Your task to perform on an android device: Search for pizza restaurants on Maps Image 0: 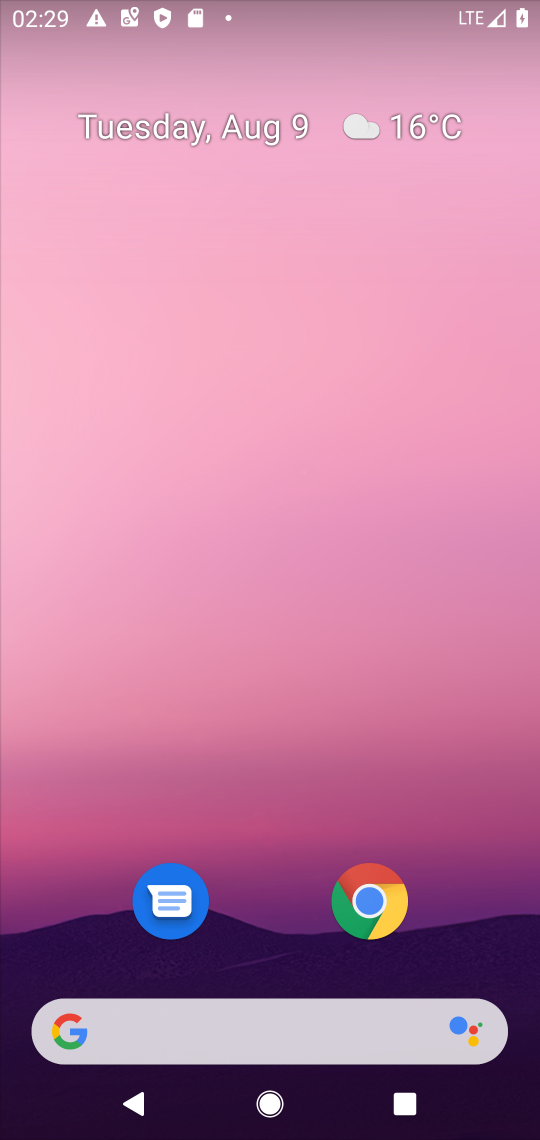
Step 0: drag from (500, 950) to (485, 276)
Your task to perform on an android device: Search for pizza restaurants on Maps Image 1: 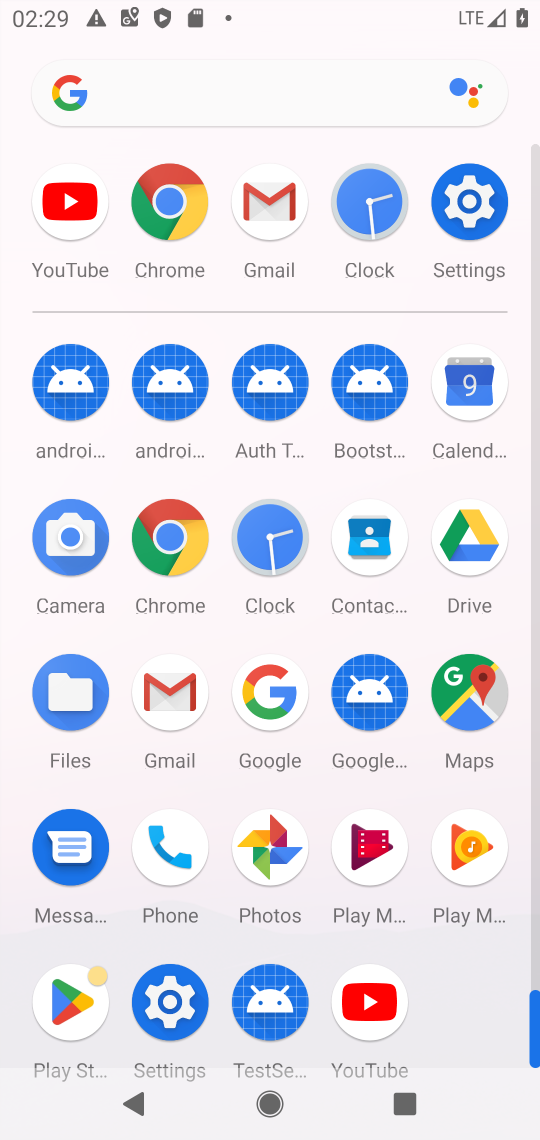
Step 1: click (467, 692)
Your task to perform on an android device: Search for pizza restaurants on Maps Image 2: 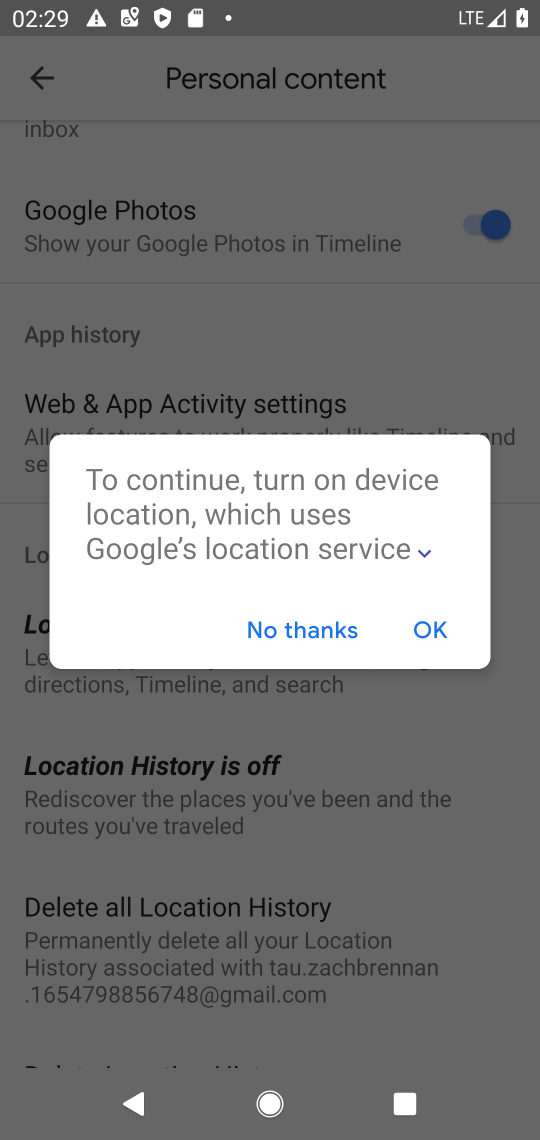
Step 2: click (438, 628)
Your task to perform on an android device: Search for pizza restaurants on Maps Image 3: 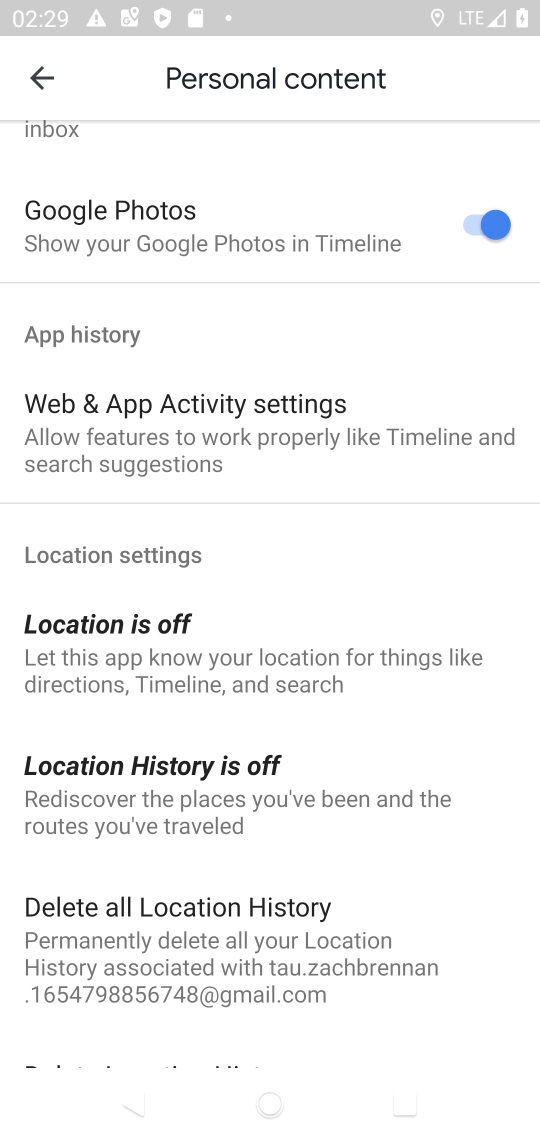
Step 3: press back button
Your task to perform on an android device: Search for pizza restaurants on Maps Image 4: 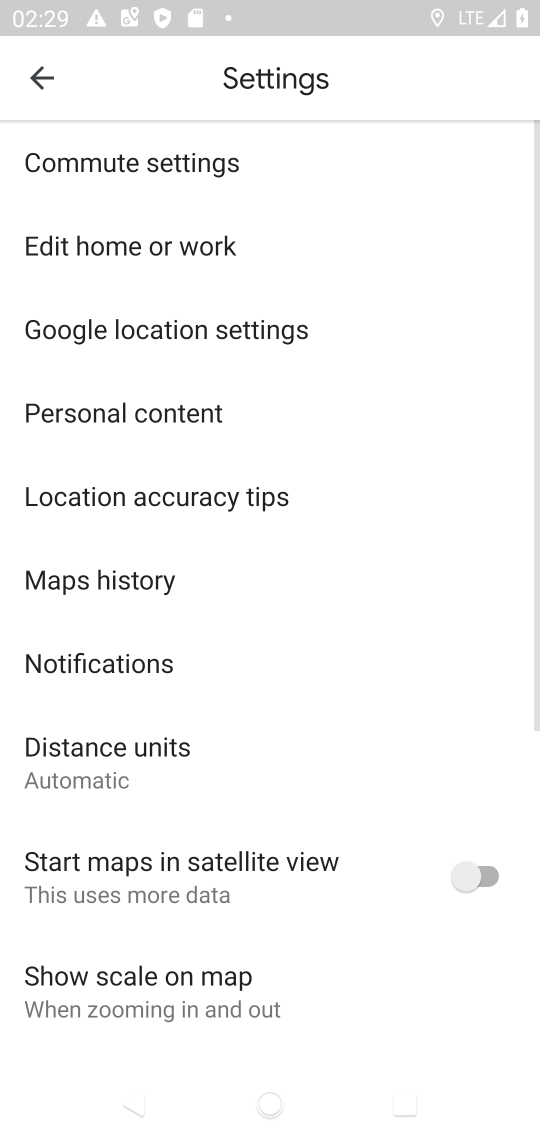
Step 4: press back button
Your task to perform on an android device: Search for pizza restaurants on Maps Image 5: 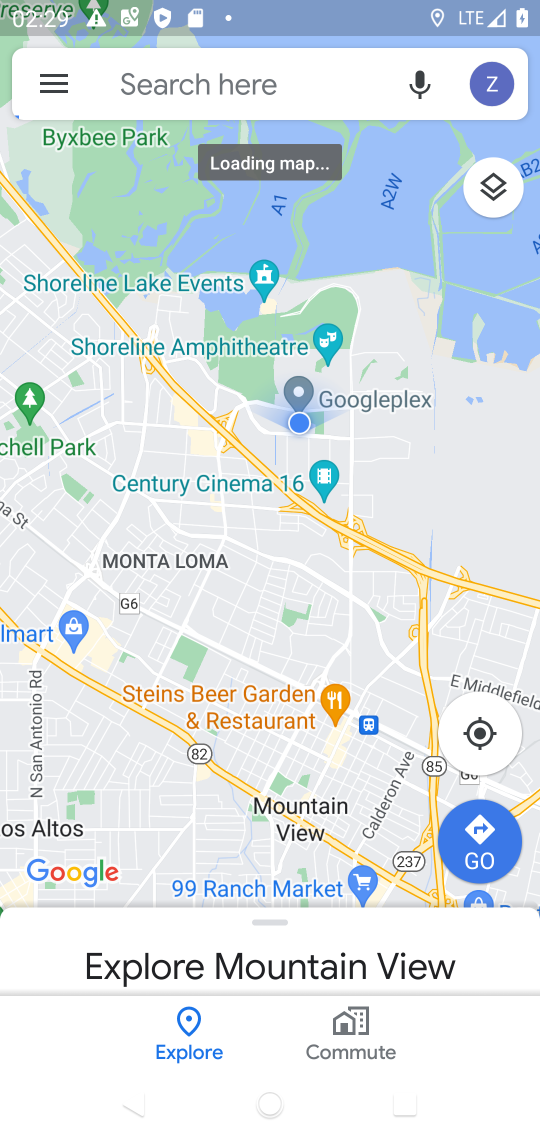
Step 5: click (225, 75)
Your task to perform on an android device: Search for pizza restaurants on Maps Image 6: 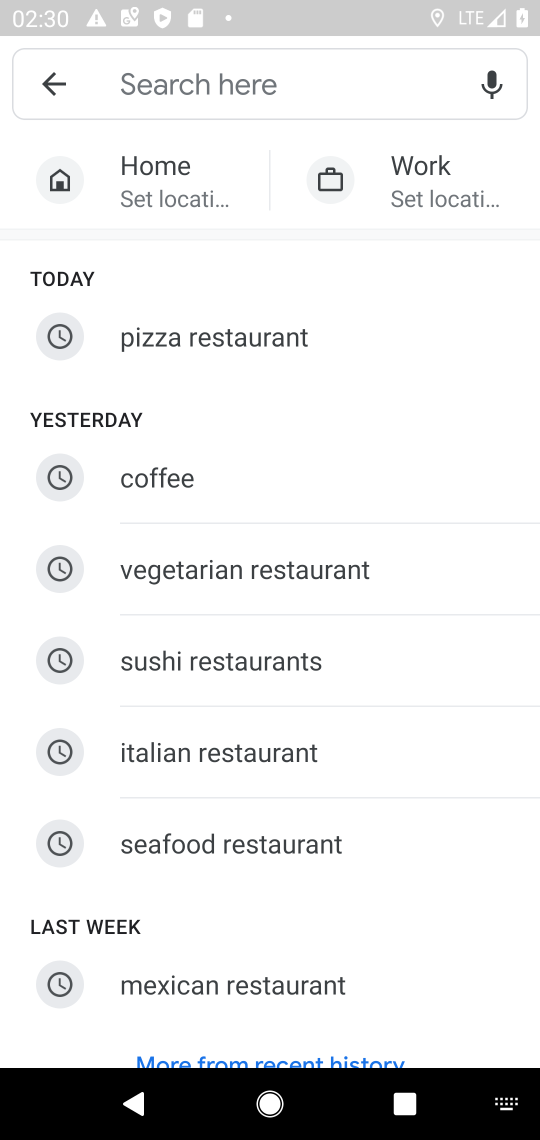
Step 6: type "pizza restaurants"
Your task to perform on an android device: Search for pizza restaurants on Maps Image 7: 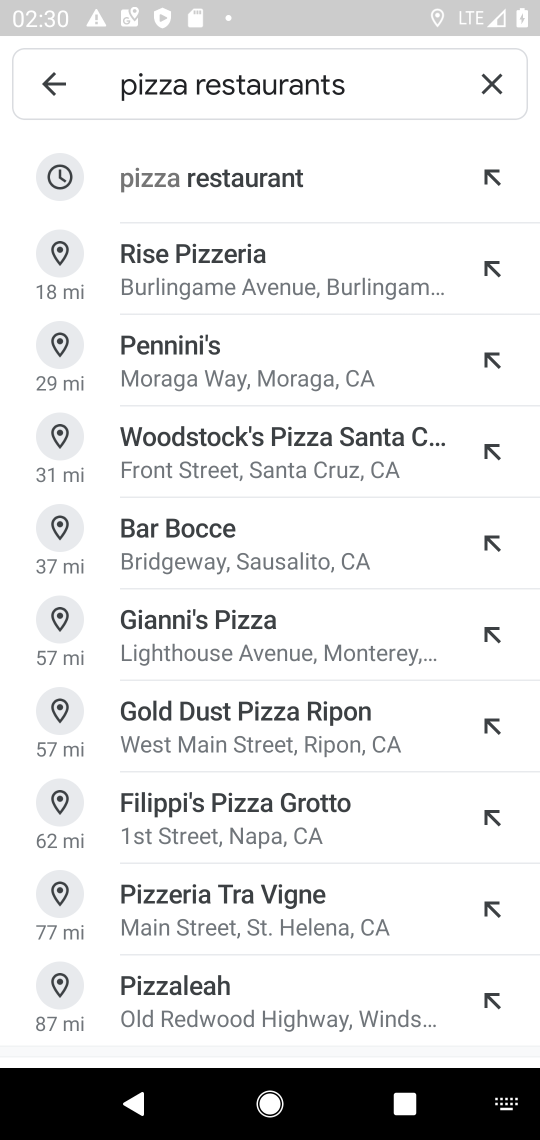
Step 7: click (251, 164)
Your task to perform on an android device: Search for pizza restaurants on Maps Image 8: 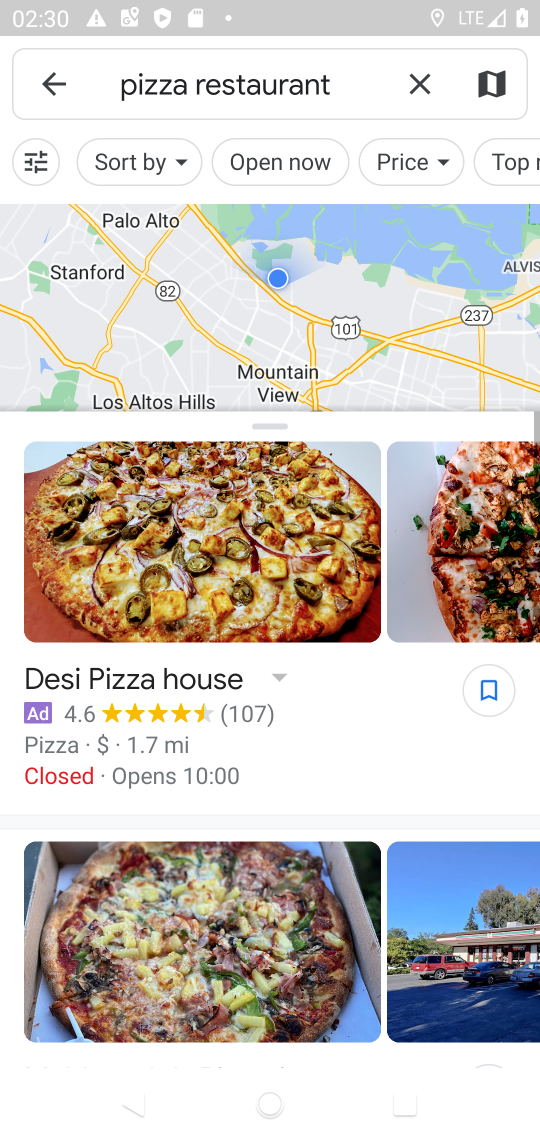
Step 8: task complete